Your task to perform on an android device: Open accessibility settings Image 0: 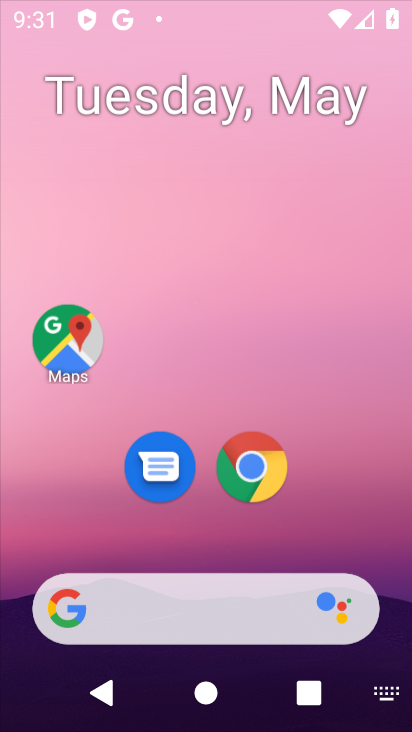
Step 0: click (266, 38)
Your task to perform on an android device: Open accessibility settings Image 1: 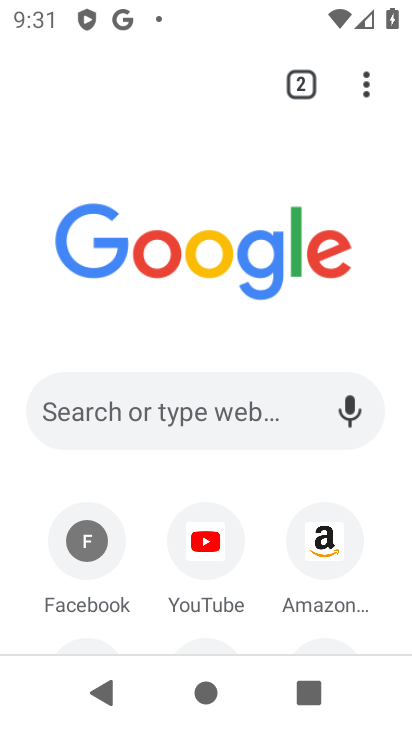
Step 1: press back button
Your task to perform on an android device: Open accessibility settings Image 2: 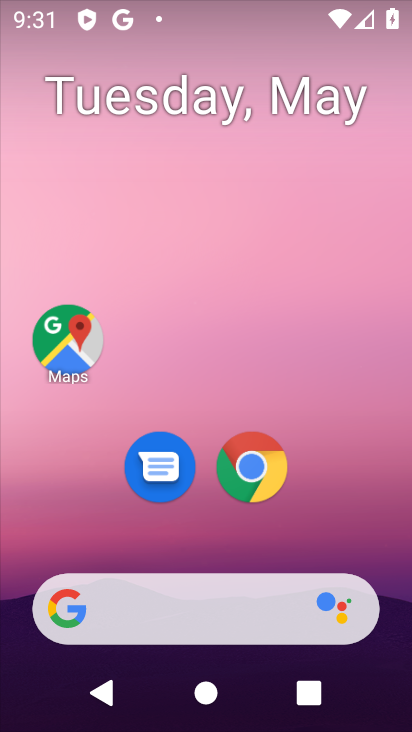
Step 2: drag from (361, 495) to (214, 2)
Your task to perform on an android device: Open accessibility settings Image 3: 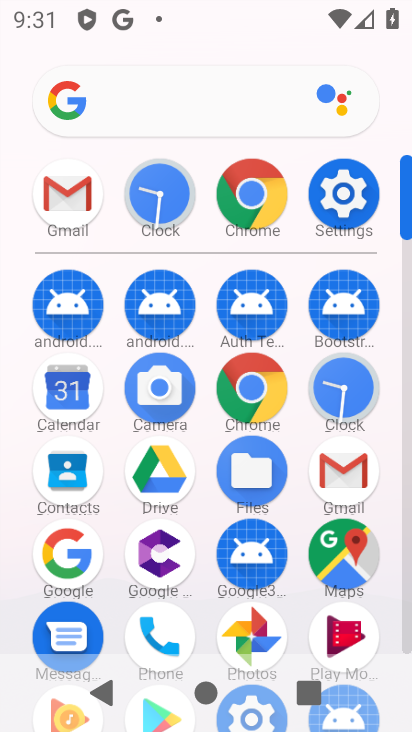
Step 3: click (342, 193)
Your task to perform on an android device: Open accessibility settings Image 4: 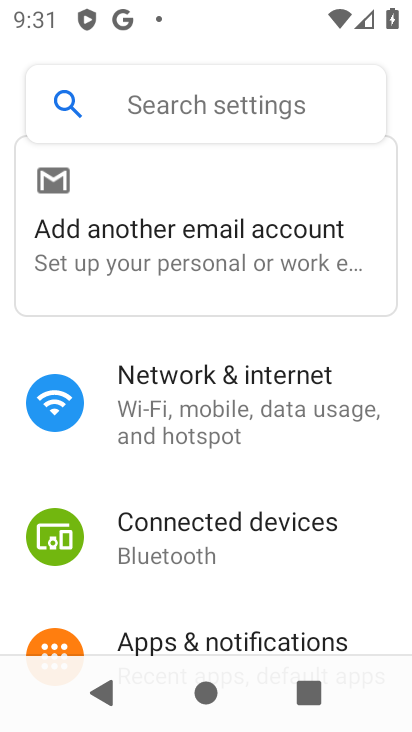
Step 4: drag from (323, 577) to (328, 175)
Your task to perform on an android device: Open accessibility settings Image 5: 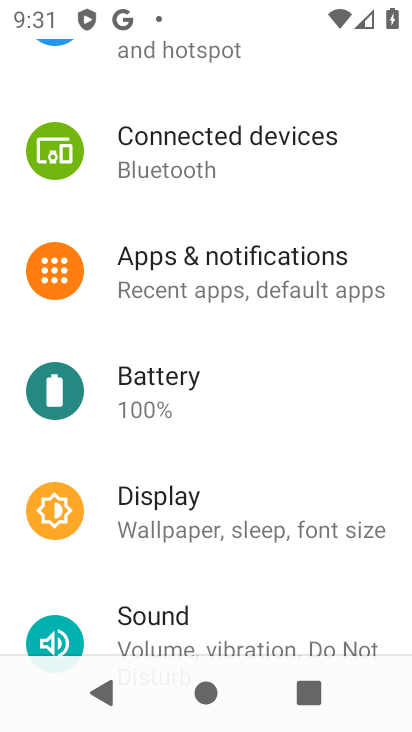
Step 5: drag from (295, 508) to (269, 125)
Your task to perform on an android device: Open accessibility settings Image 6: 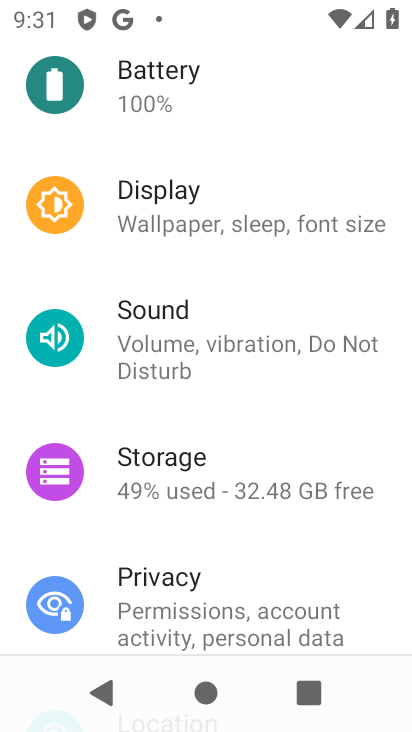
Step 6: drag from (271, 492) to (275, 98)
Your task to perform on an android device: Open accessibility settings Image 7: 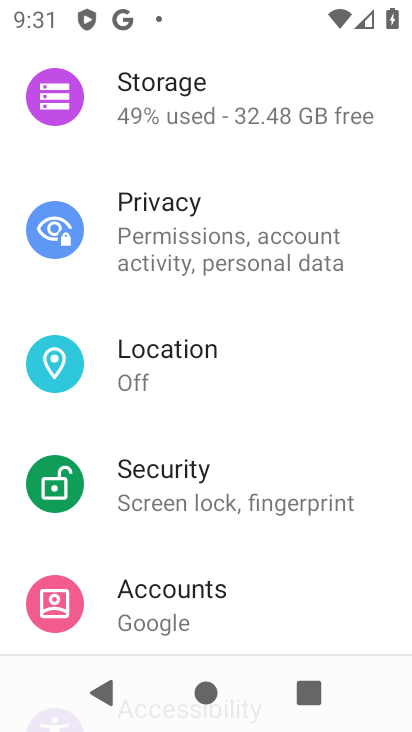
Step 7: drag from (259, 506) to (253, 102)
Your task to perform on an android device: Open accessibility settings Image 8: 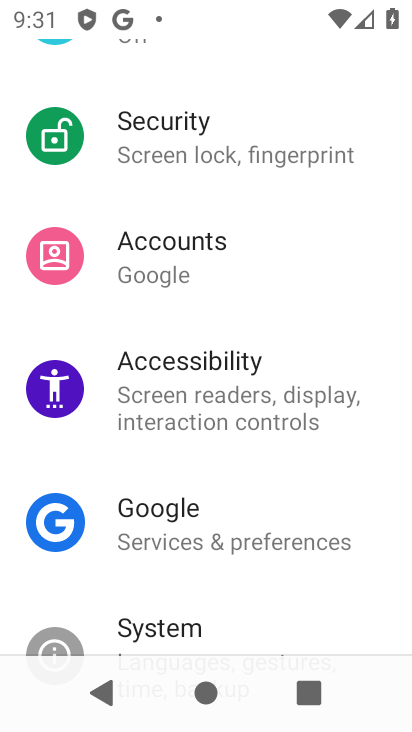
Step 8: click (184, 394)
Your task to perform on an android device: Open accessibility settings Image 9: 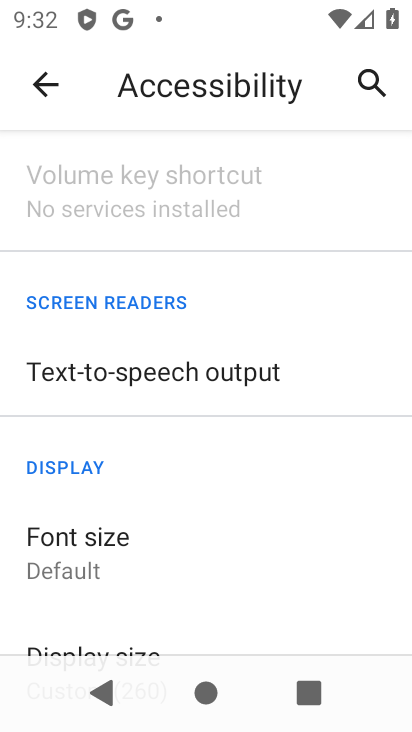
Step 9: task complete